Your task to perform on an android device: change the upload size in google photos Image 0: 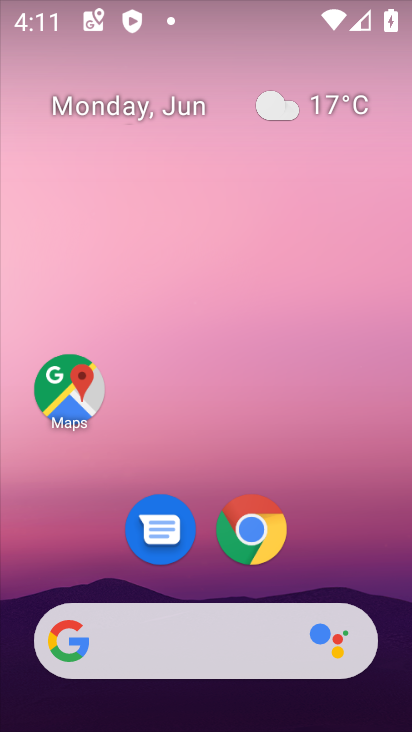
Step 0: drag from (359, 551) to (232, 65)
Your task to perform on an android device: change the upload size in google photos Image 1: 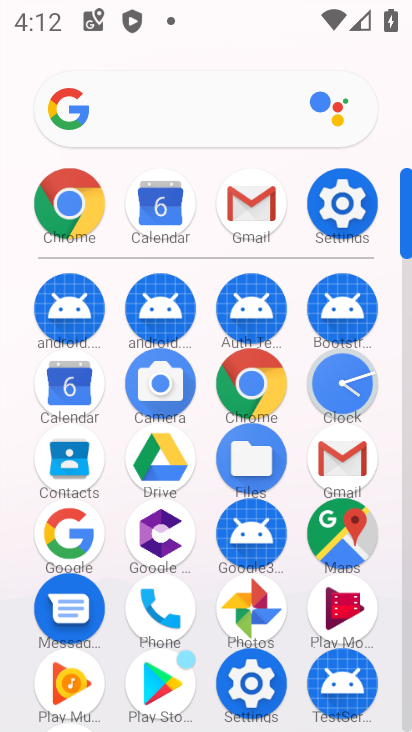
Step 1: click (253, 609)
Your task to perform on an android device: change the upload size in google photos Image 2: 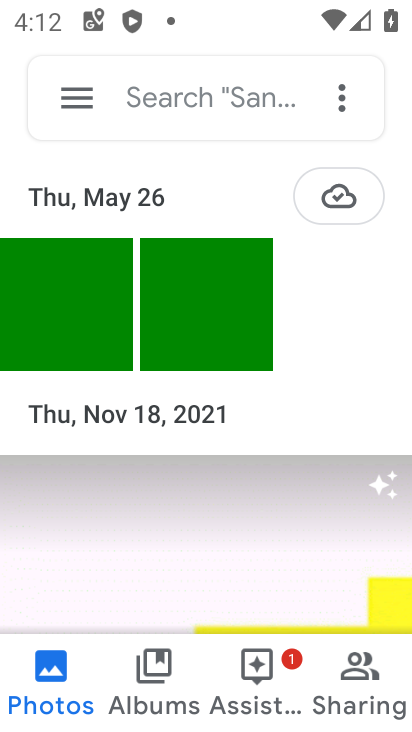
Step 2: click (76, 97)
Your task to perform on an android device: change the upload size in google photos Image 3: 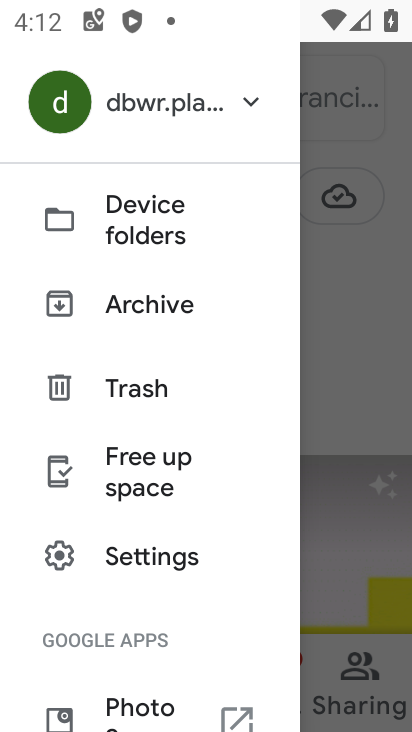
Step 3: click (175, 558)
Your task to perform on an android device: change the upload size in google photos Image 4: 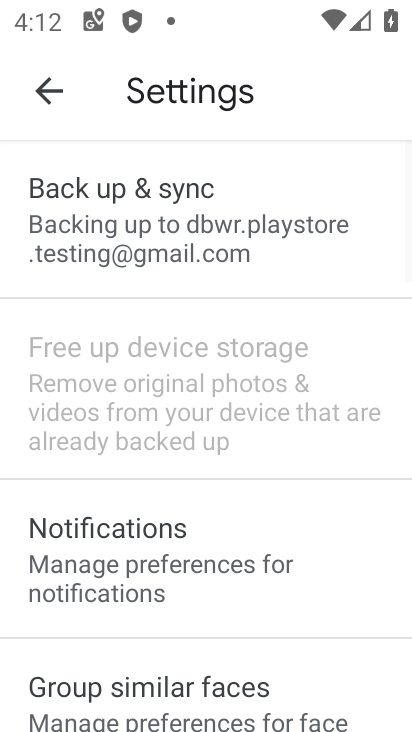
Step 4: click (153, 237)
Your task to perform on an android device: change the upload size in google photos Image 5: 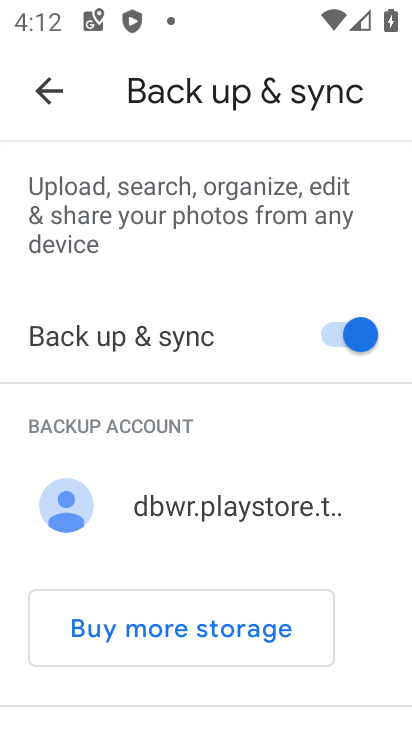
Step 5: drag from (212, 472) to (322, 237)
Your task to perform on an android device: change the upload size in google photos Image 6: 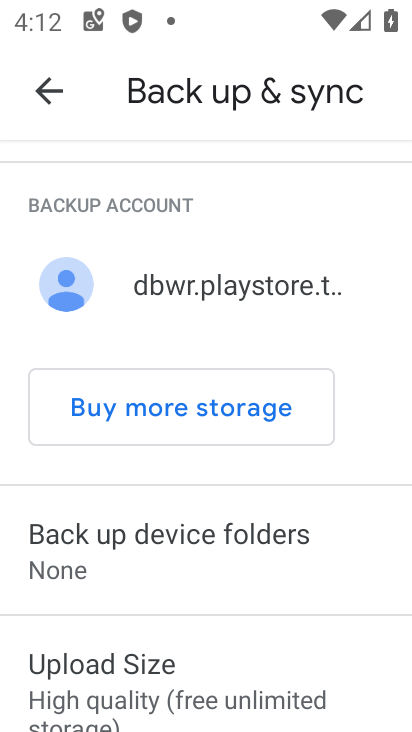
Step 6: drag from (195, 579) to (344, 314)
Your task to perform on an android device: change the upload size in google photos Image 7: 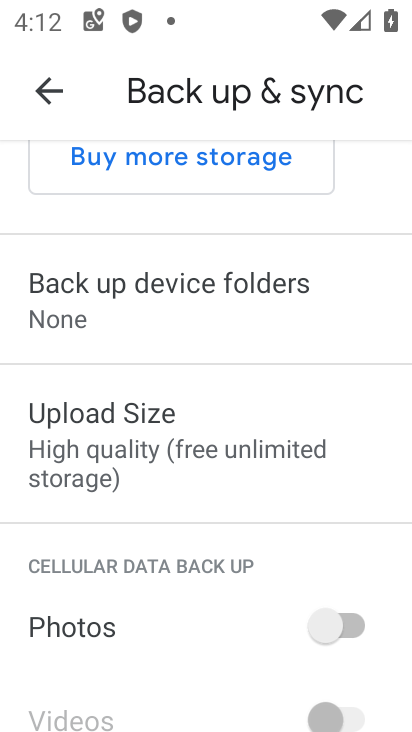
Step 7: click (220, 449)
Your task to perform on an android device: change the upload size in google photos Image 8: 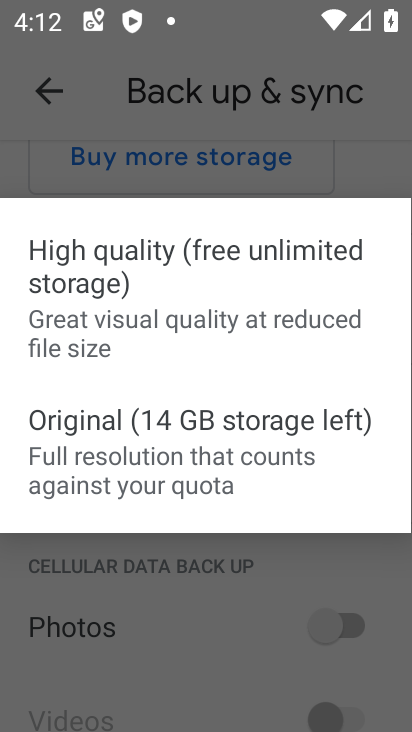
Step 8: click (174, 462)
Your task to perform on an android device: change the upload size in google photos Image 9: 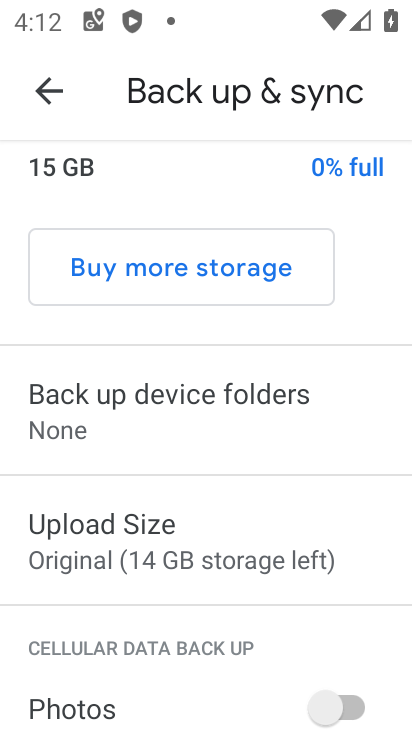
Step 9: task complete